Your task to perform on an android device: toggle sleep mode Image 0: 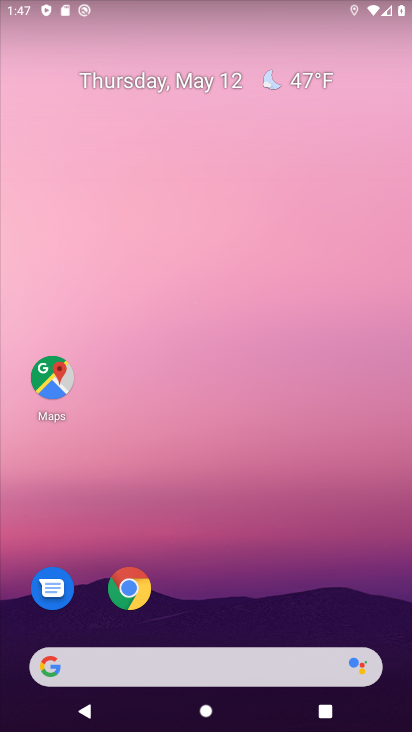
Step 0: drag from (400, 630) to (286, 81)
Your task to perform on an android device: toggle sleep mode Image 1: 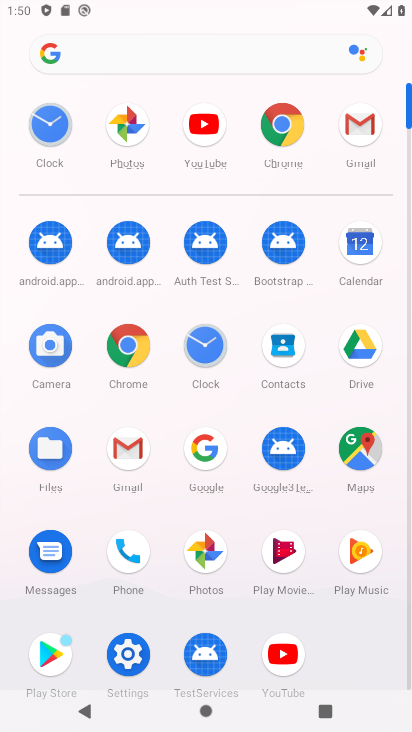
Step 1: click (102, 667)
Your task to perform on an android device: toggle sleep mode Image 2: 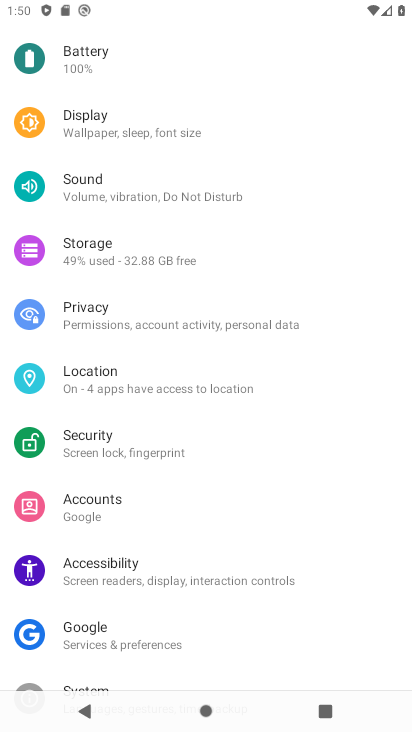
Step 2: task complete